Your task to perform on an android device: turn vacation reply on in the gmail app Image 0: 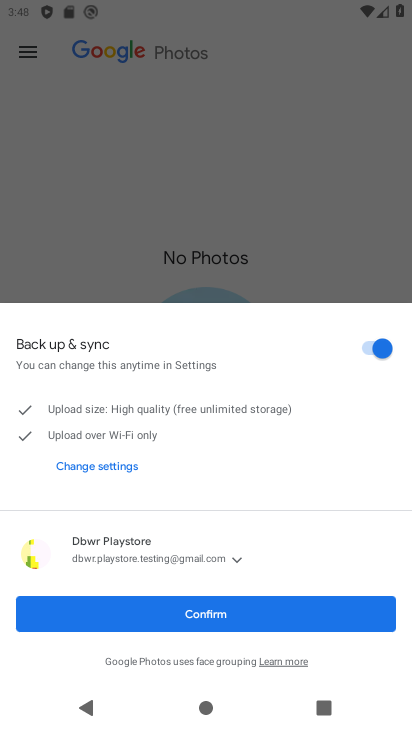
Step 0: press home button
Your task to perform on an android device: turn vacation reply on in the gmail app Image 1: 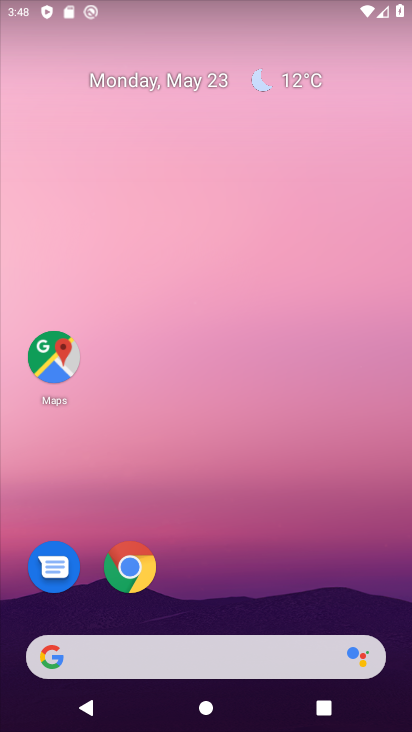
Step 1: drag from (166, 609) to (226, 156)
Your task to perform on an android device: turn vacation reply on in the gmail app Image 2: 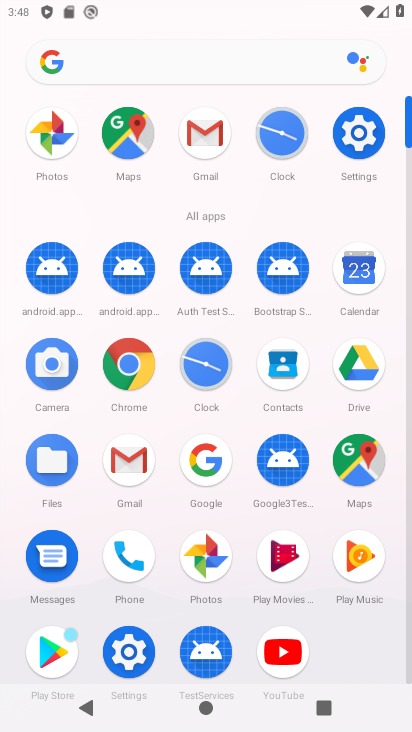
Step 2: click (138, 463)
Your task to perform on an android device: turn vacation reply on in the gmail app Image 3: 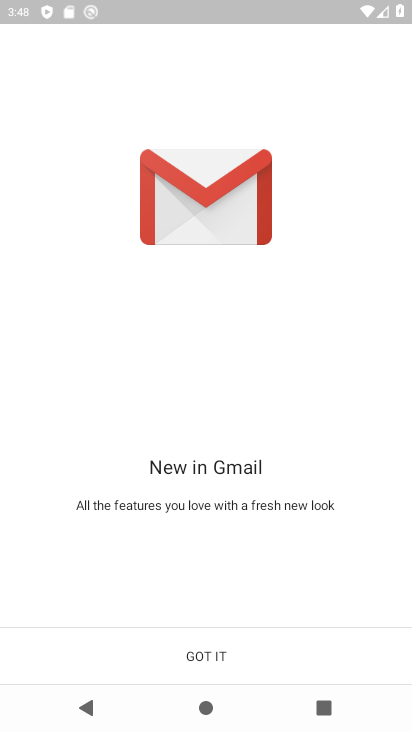
Step 3: click (220, 652)
Your task to perform on an android device: turn vacation reply on in the gmail app Image 4: 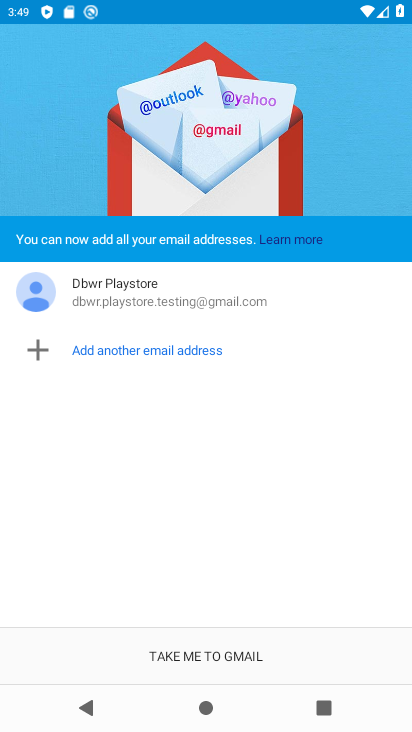
Step 4: click (217, 656)
Your task to perform on an android device: turn vacation reply on in the gmail app Image 5: 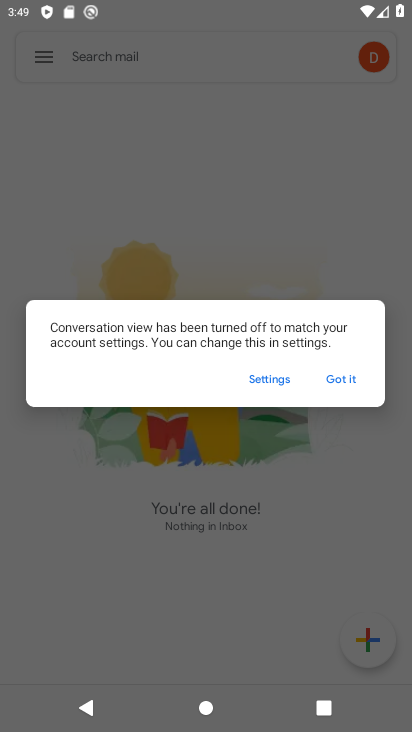
Step 5: click (336, 371)
Your task to perform on an android device: turn vacation reply on in the gmail app Image 6: 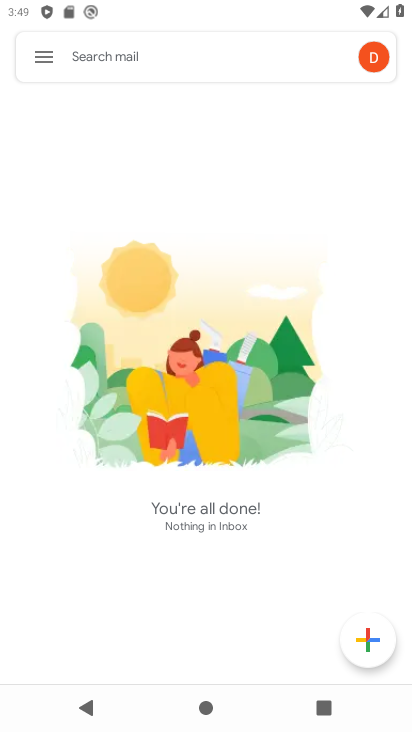
Step 6: click (44, 64)
Your task to perform on an android device: turn vacation reply on in the gmail app Image 7: 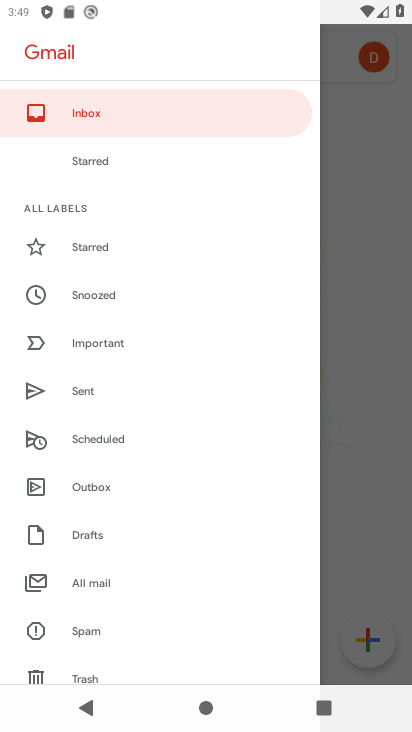
Step 7: drag from (128, 638) to (128, 312)
Your task to perform on an android device: turn vacation reply on in the gmail app Image 8: 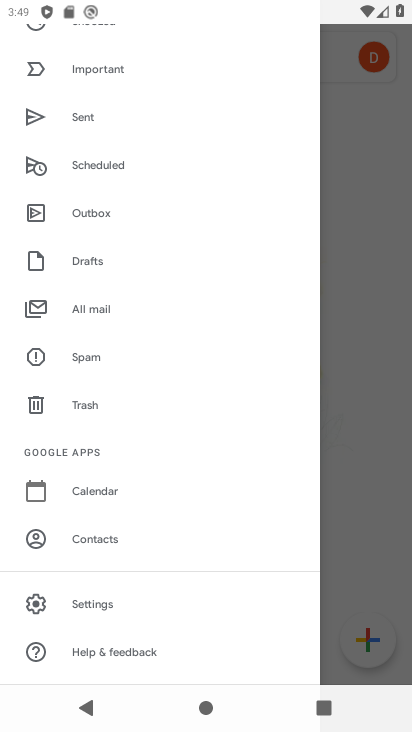
Step 8: click (94, 601)
Your task to perform on an android device: turn vacation reply on in the gmail app Image 9: 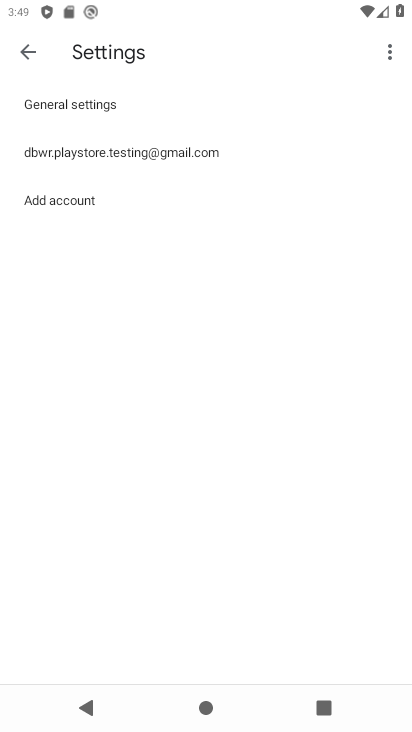
Step 9: click (91, 162)
Your task to perform on an android device: turn vacation reply on in the gmail app Image 10: 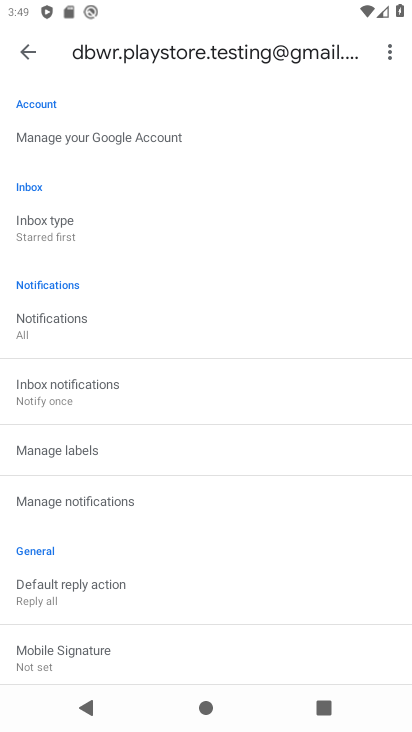
Step 10: drag from (131, 560) to (175, 260)
Your task to perform on an android device: turn vacation reply on in the gmail app Image 11: 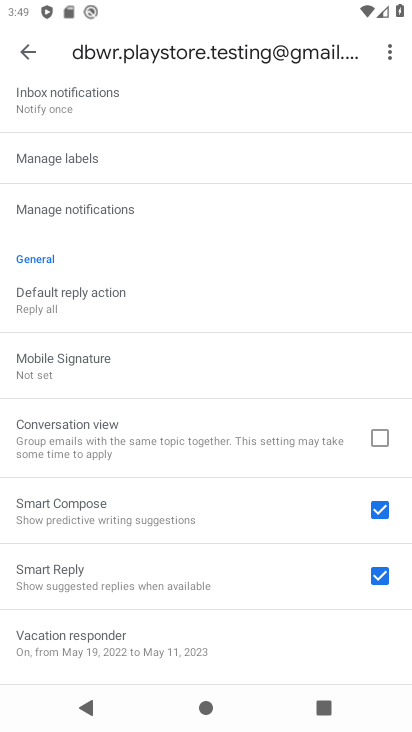
Step 11: drag from (180, 577) to (223, 231)
Your task to perform on an android device: turn vacation reply on in the gmail app Image 12: 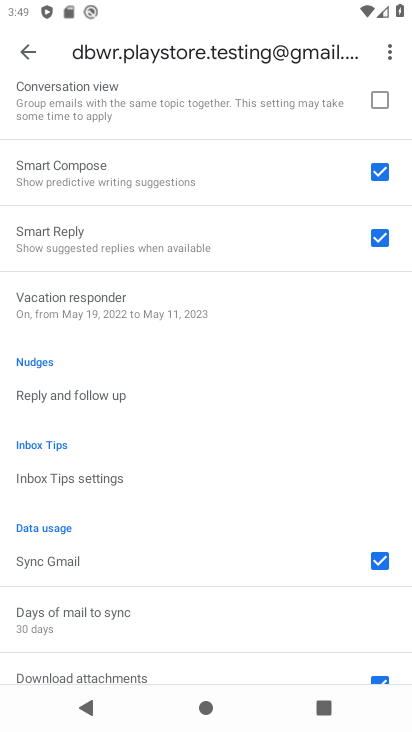
Step 12: click (113, 308)
Your task to perform on an android device: turn vacation reply on in the gmail app Image 13: 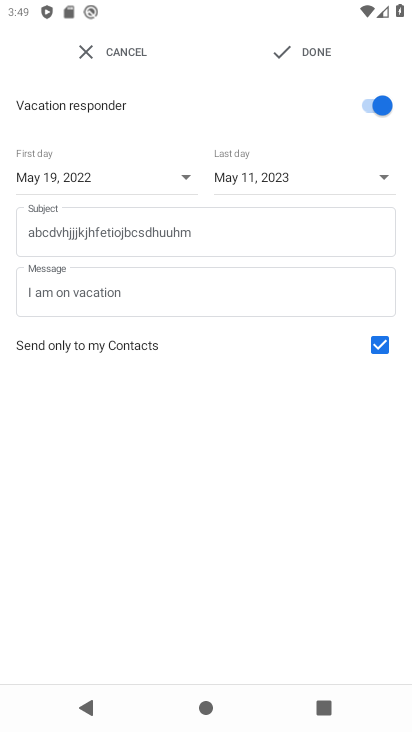
Step 13: task complete